Your task to perform on an android device: Open Youtube and go to the subscriptions tab Image 0: 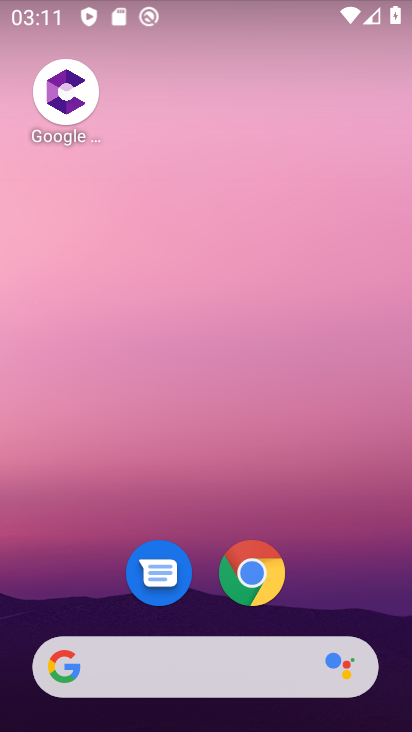
Step 0: drag from (140, 584) to (257, 162)
Your task to perform on an android device: Open Youtube and go to the subscriptions tab Image 1: 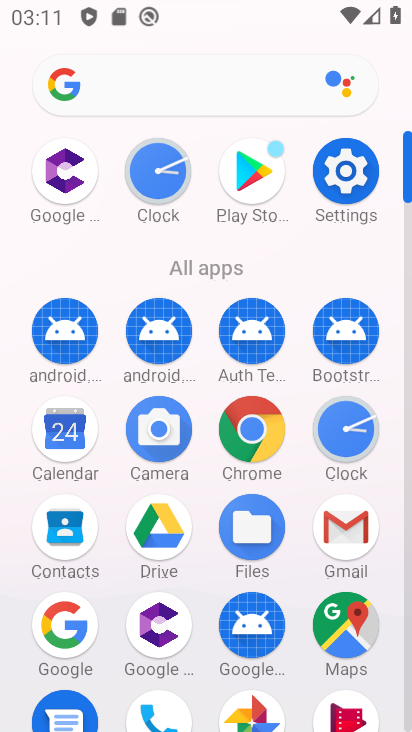
Step 1: drag from (200, 619) to (332, 104)
Your task to perform on an android device: Open Youtube and go to the subscriptions tab Image 2: 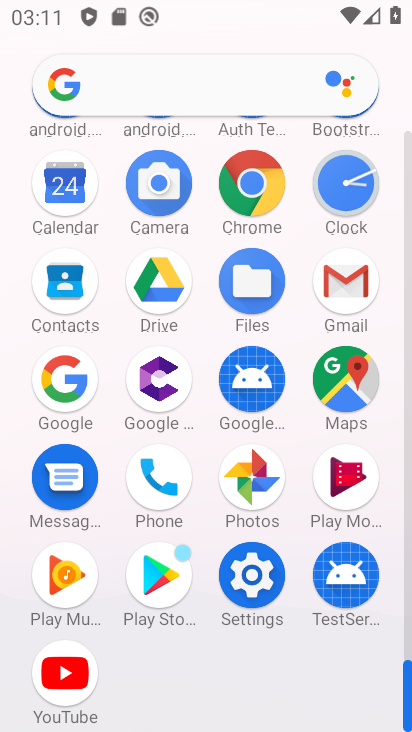
Step 2: click (67, 668)
Your task to perform on an android device: Open Youtube and go to the subscriptions tab Image 3: 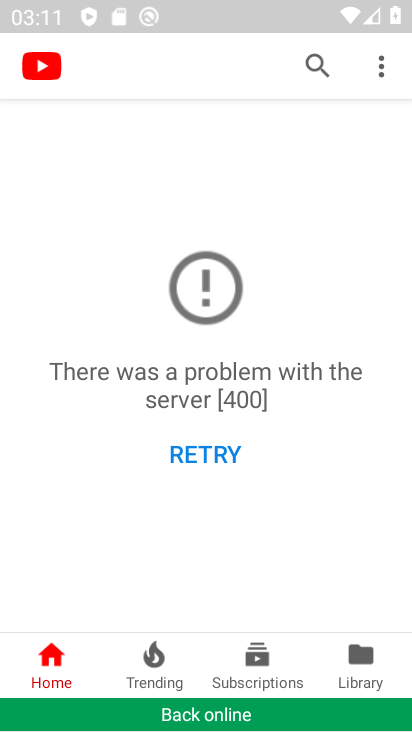
Step 3: click (248, 664)
Your task to perform on an android device: Open Youtube and go to the subscriptions tab Image 4: 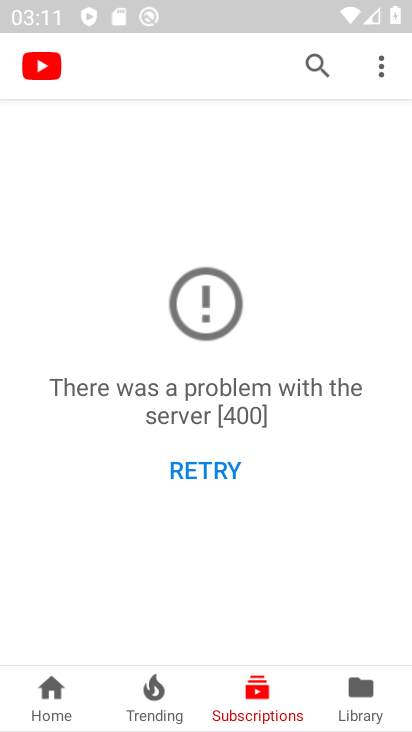
Step 4: task complete